Your task to perform on an android device: stop showing notifications on the lock screen Image 0: 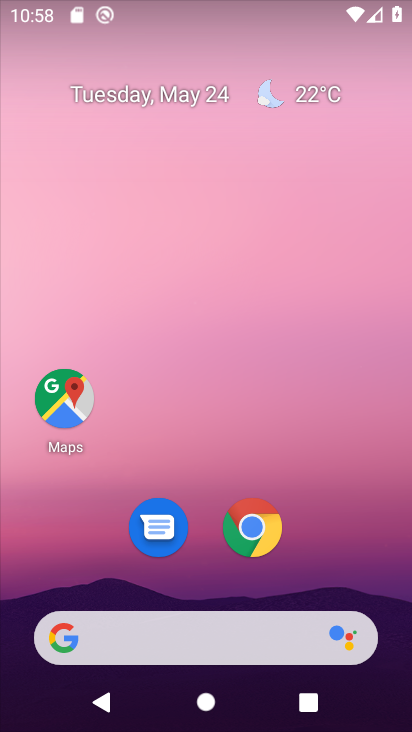
Step 0: press home button
Your task to perform on an android device: stop showing notifications on the lock screen Image 1: 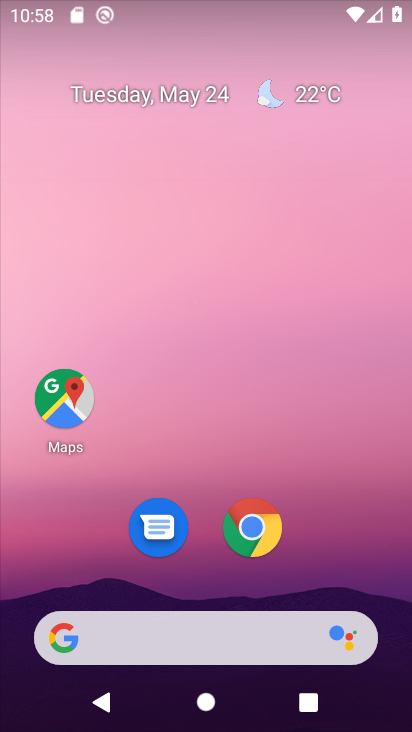
Step 1: drag from (186, 641) to (316, 59)
Your task to perform on an android device: stop showing notifications on the lock screen Image 2: 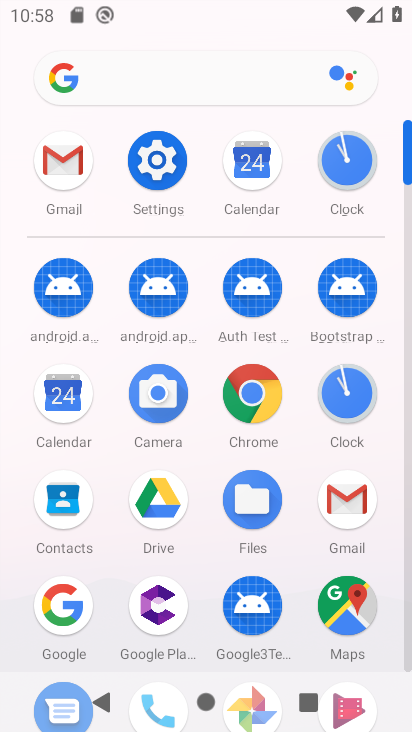
Step 2: click (163, 165)
Your task to perform on an android device: stop showing notifications on the lock screen Image 3: 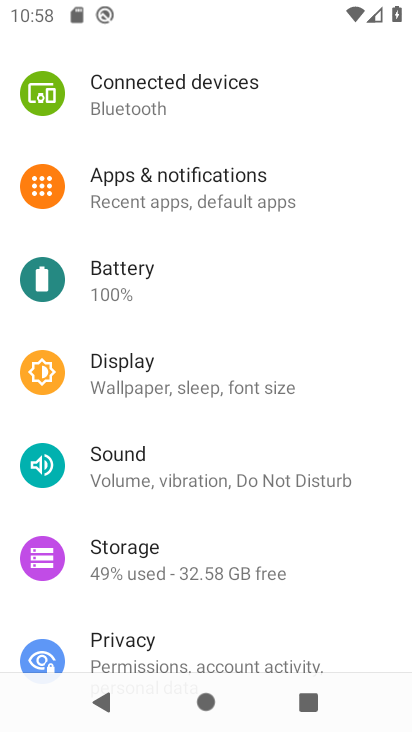
Step 3: click (218, 189)
Your task to perform on an android device: stop showing notifications on the lock screen Image 4: 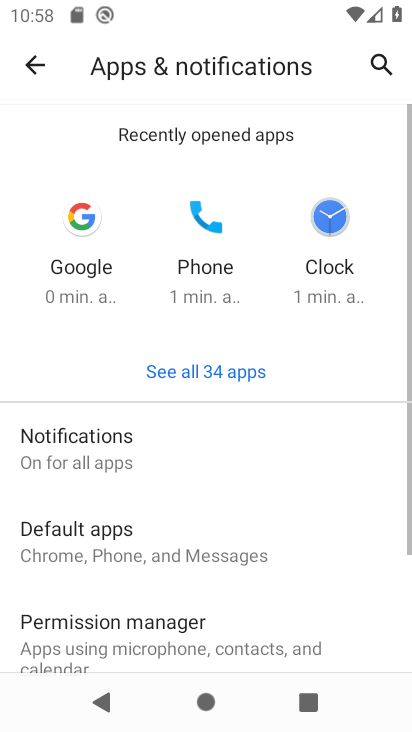
Step 4: click (110, 427)
Your task to perform on an android device: stop showing notifications on the lock screen Image 5: 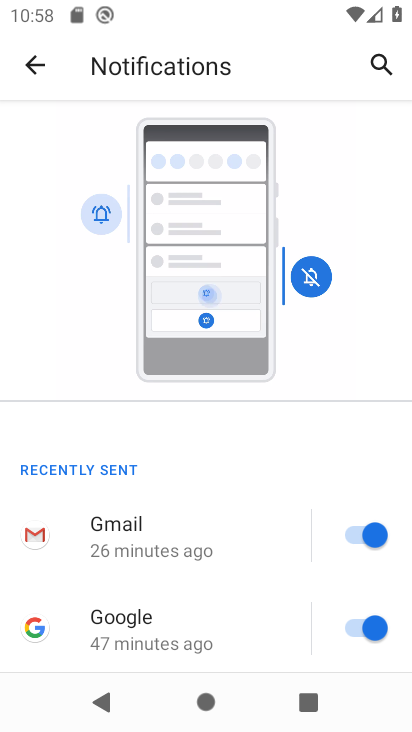
Step 5: drag from (302, 355) to (357, 118)
Your task to perform on an android device: stop showing notifications on the lock screen Image 6: 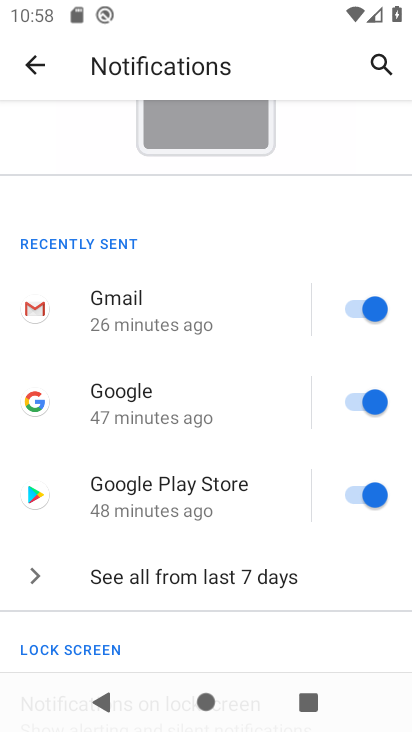
Step 6: drag from (272, 594) to (314, 180)
Your task to perform on an android device: stop showing notifications on the lock screen Image 7: 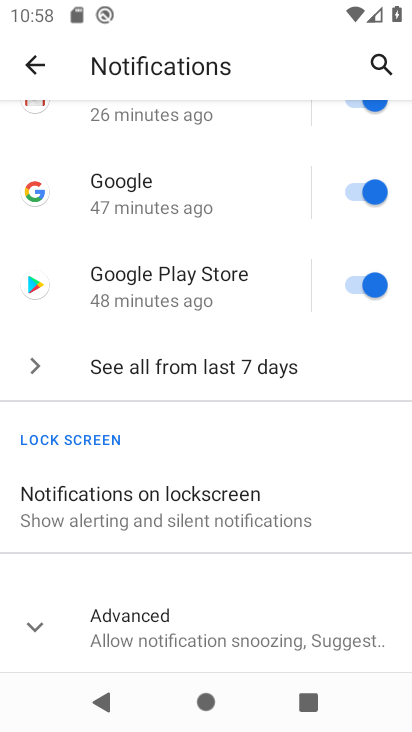
Step 7: click (186, 510)
Your task to perform on an android device: stop showing notifications on the lock screen Image 8: 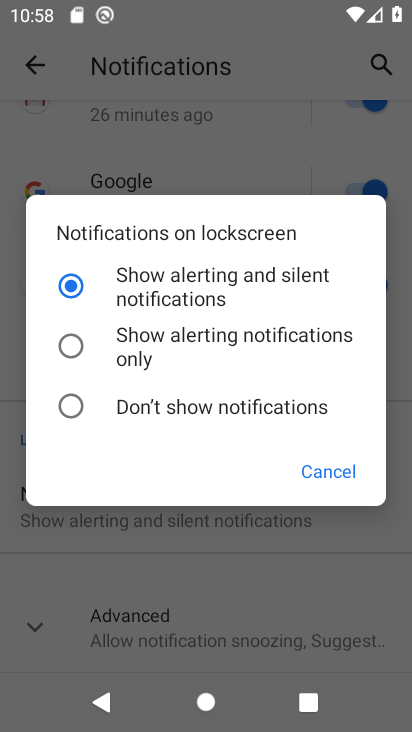
Step 8: click (68, 404)
Your task to perform on an android device: stop showing notifications on the lock screen Image 9: 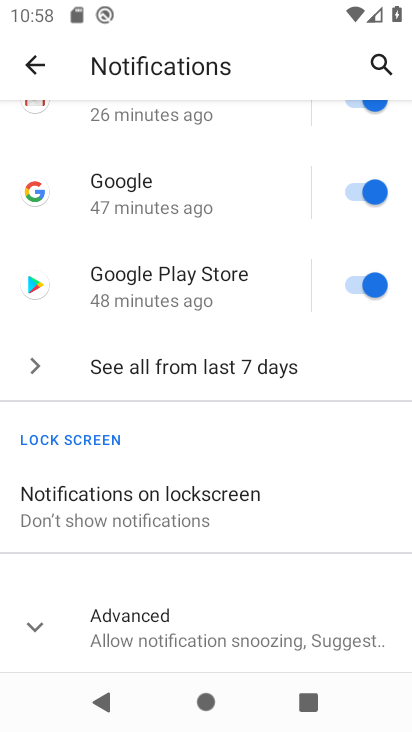
Step 9: task complete